Your task to perform on an android device: Search for a new phone on Amazon. Image 0: 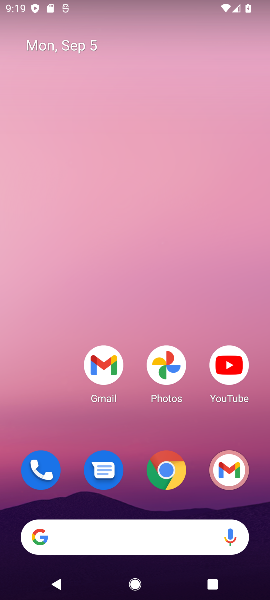
Step 0: click (123, 540)
Your task to perform on an android device: Search for a new phone on Amazon. Image 1: 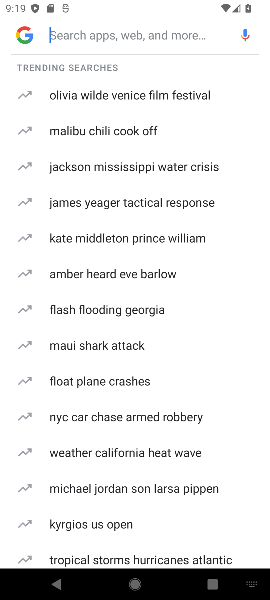
Step 1: type "amazon"
Your task to perform on an android device: Search for a new phone on Amazon. Image 2: 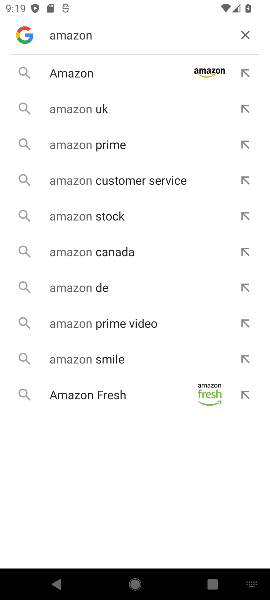
Step 2: click (80, 73)
Your task to perform on an android device: Search for a new phone on Amazon. Image 3: 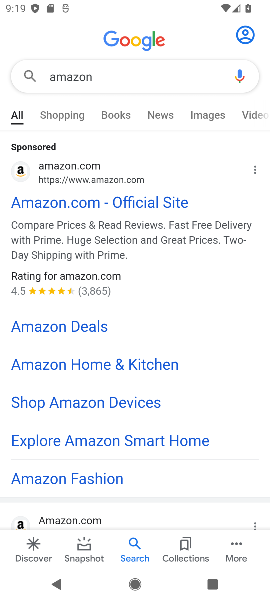
Step 3: click (36, 196)
Your task to perform on an android device: Search for a new phone on Amazon. Image 4: 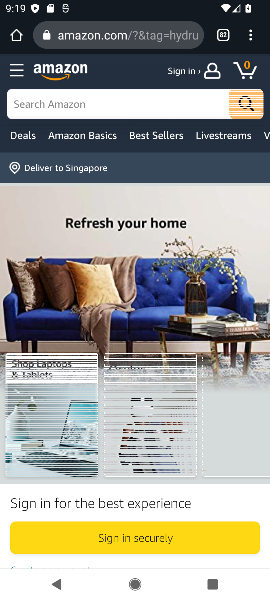
Step 4: click (106, 107)
Your task to perform on an android device: Search for a new phone on Amazon. Image 5: 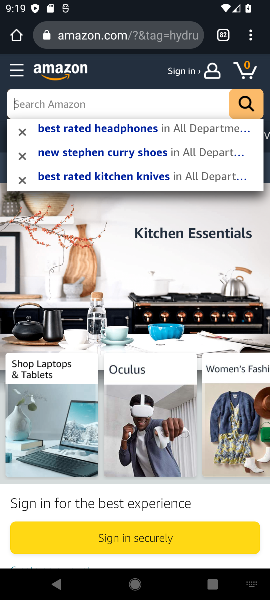
Step 5: type "new phone"
Your task to perform on an android device: Search for a new phone on Amazon. Image 6: 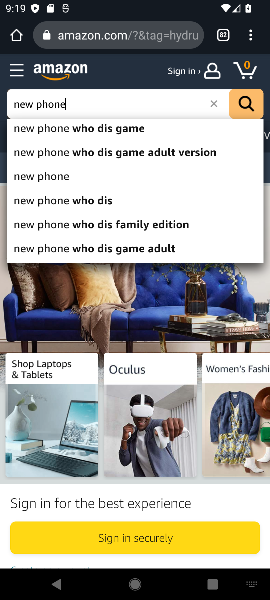
Step 6: click (242, 102)
Your task to perform on an android device: Search for a new phone on Amazon. Image 7: 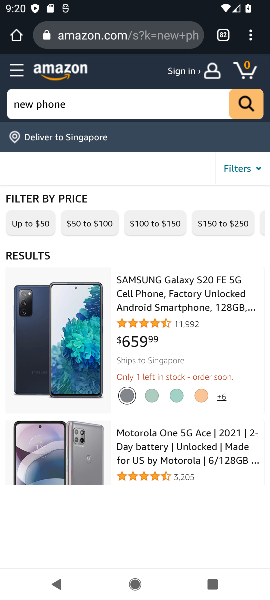
Step 7: task complete